Your task to perform on an android device: change the clock style Image 0: 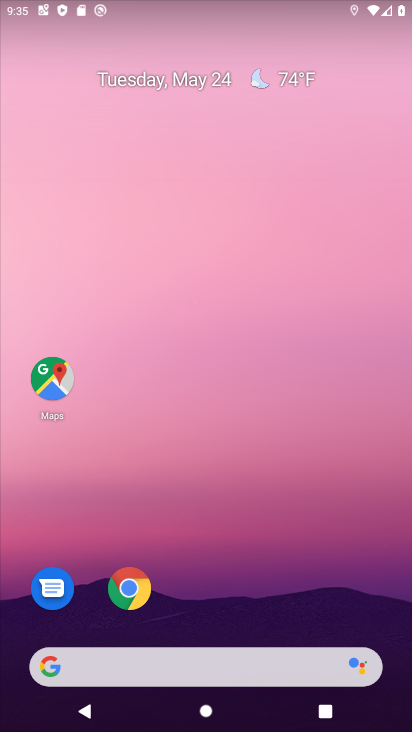
Step 0: drag from (233, 537) to (187, 44)
Your task to perform on an android device: change the clock style Image 1: 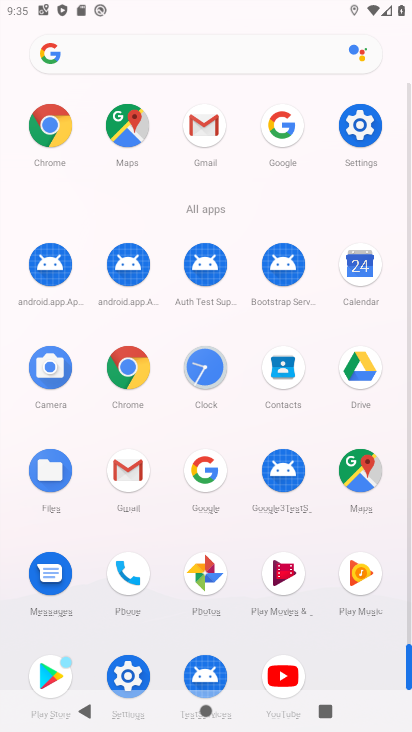
Step 1: drag from (0, 559) to (10, 239)
Your task to perform on an android device: change the clock style Image 2: 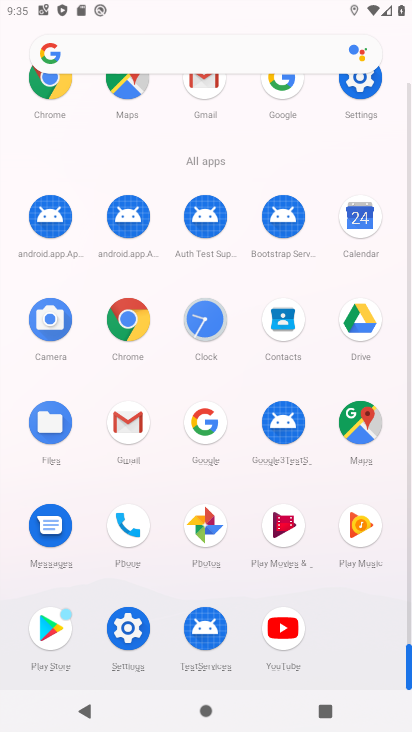
Step 2: drag from (10, 539) to (12, 246)
Your task to perform on an android device: change the clock style Image 3: 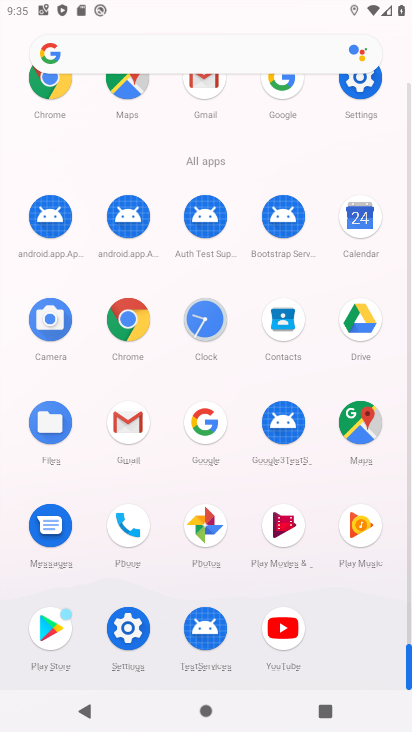
Step 3: click (201, 316)
Your task to perform on an android device: change the clock style Image 4: 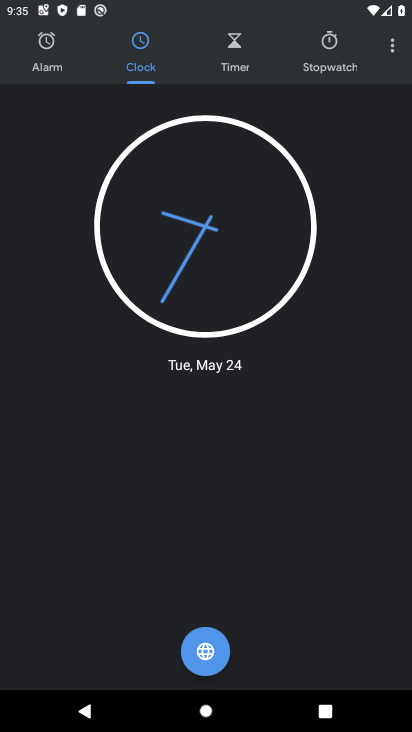
Step 4: drag from (392, 41) to (311, 90)
Your task to perform on an android device: change the clock style Image 5: 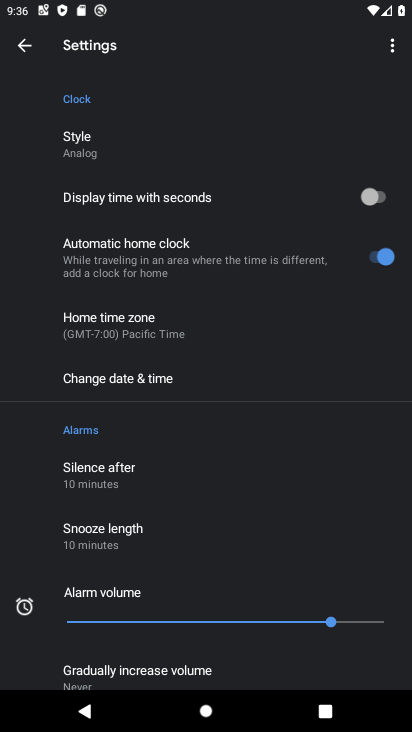
Step 5: click (139, 141)
Your task to perform on an android device: change the clock style Image 6: 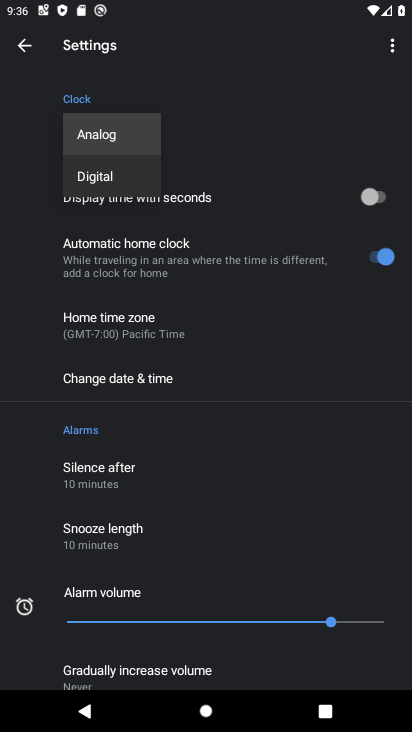
Step 6: click (128, 175)
Your task to perform on an android device: change the clock style Image 7: 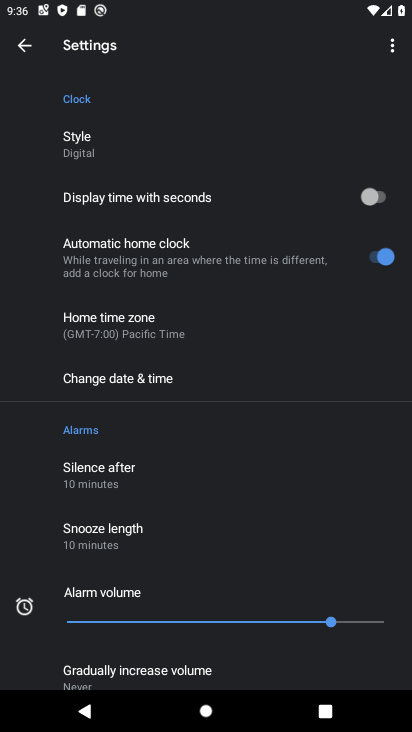
Step 7: task complete